Your task to perform on an android device: change keyboard looks Image 0: 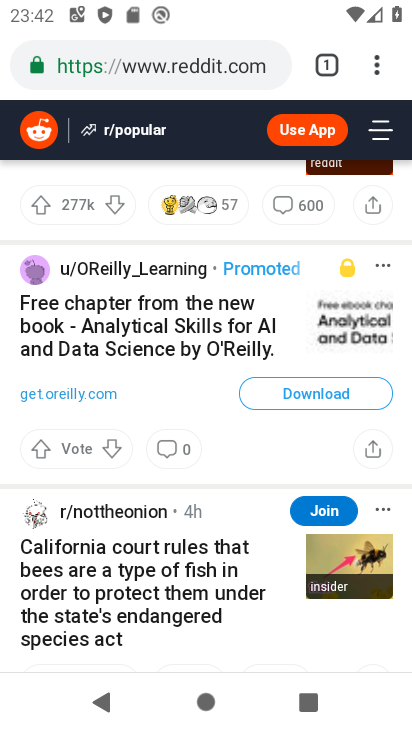
Step 0: press home button
Your task to perform on an android device: change keyboard looks Image 1: 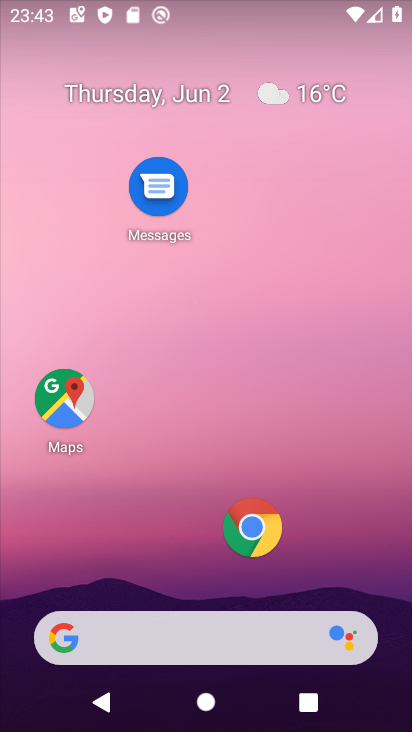
Step 1: drag from (192, 575) to (255, 40)
Your task to perform on an android device: change keyboard looks Image 2: 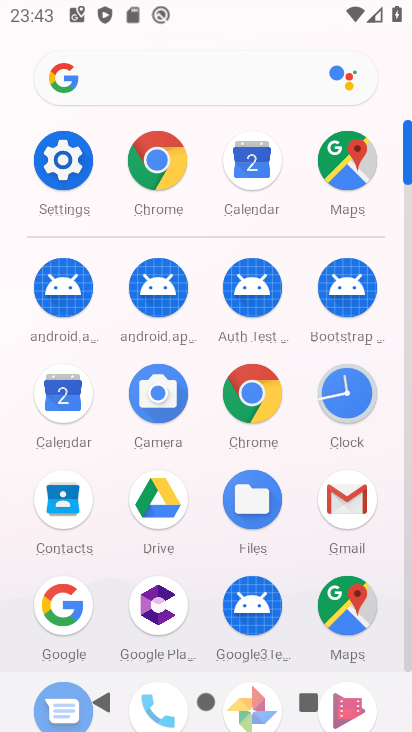
Step 2: click (58, 153)
Your task to perform on an android device: change keyboard looks Image 3: 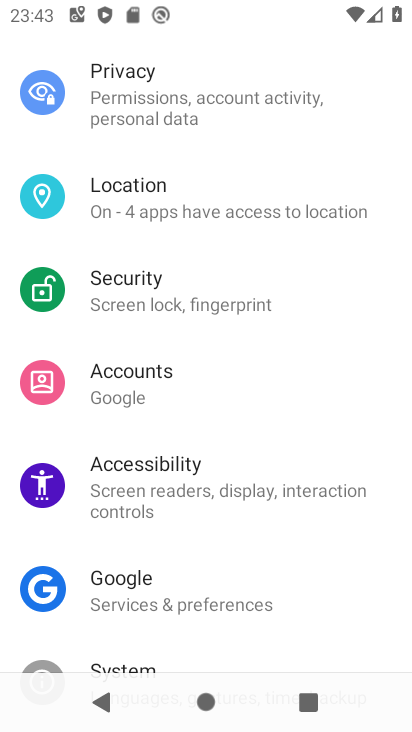
Step 3: click (153, 652)
Your task to perform on an android device: change keyboard looks Image 4: 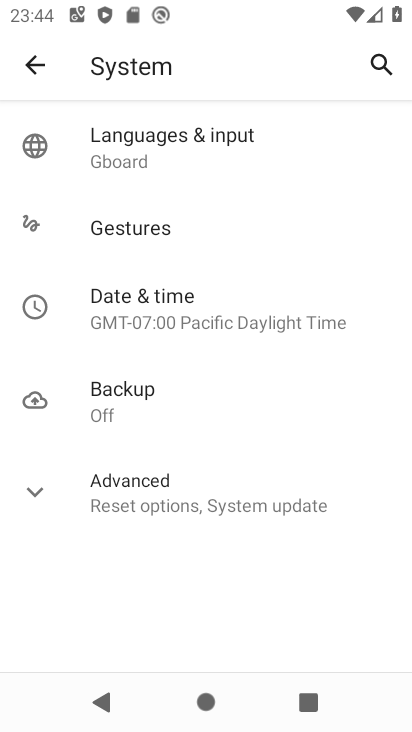
Step 4: click (108, 146)
Your task to perform on an android device: change keyboard looks Image 5: 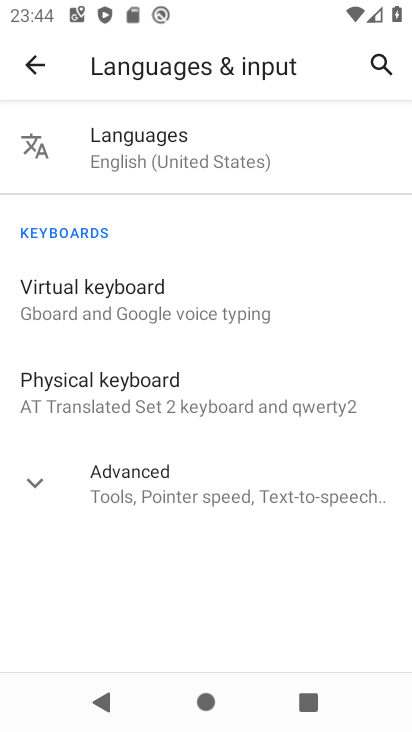
Step 5: click (153, 300)
Your task to perform on an android device: change keyboard looks Image 6: 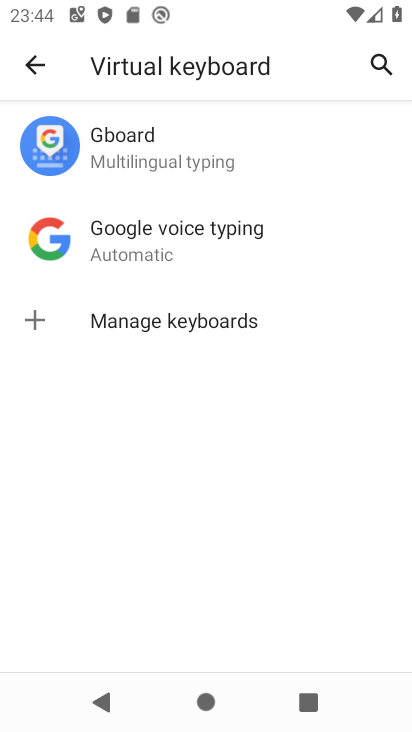
Step 6: click (170, 127)
Your task to perform on an android device: change keyboard looks Image 7: 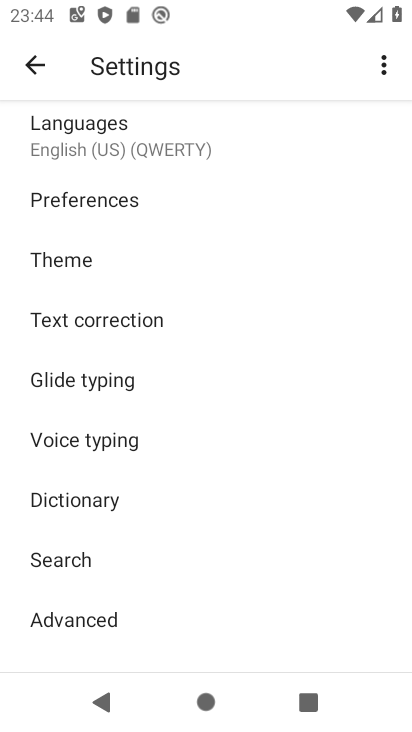
Step 7: click (108, 260)
Your task to perform on an android device: change keyboard looks Image 8: 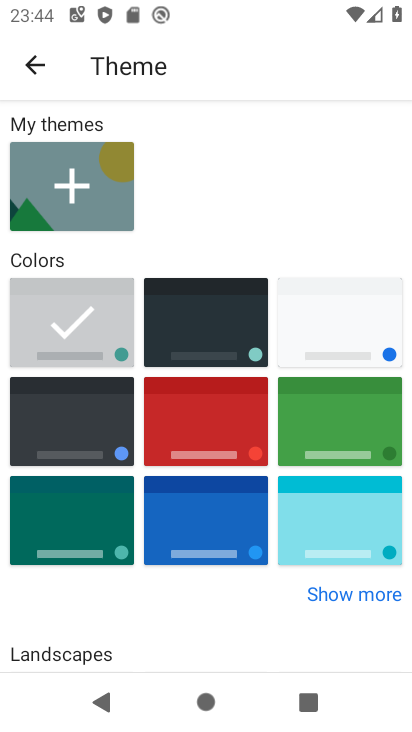
Step 8: click (200, 419)
Your task to perform on an android device: change keyboard looks Image 9: 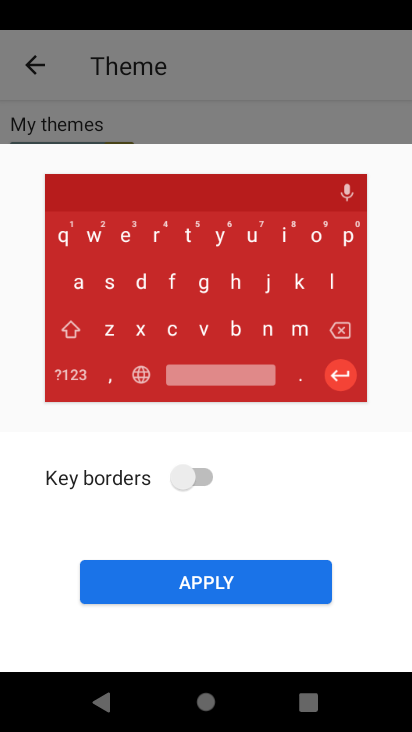
Step 9: click (197, 584)
Your task to perform on an android device: change keyboard looks Image 10: 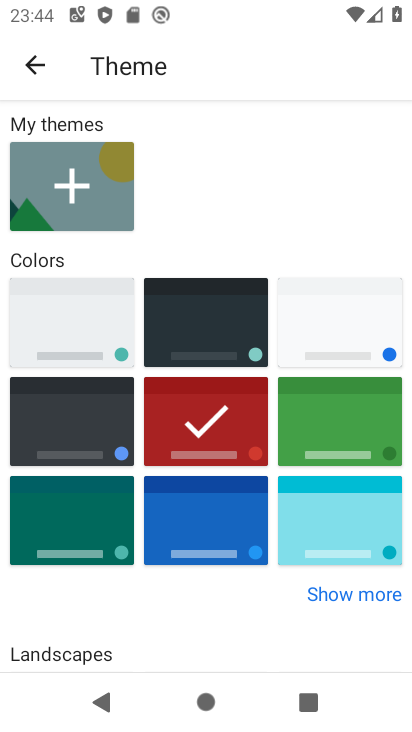
Step 10: task complete